Your task to perform on an android device: visit the assistant section in the google photos Image 0: 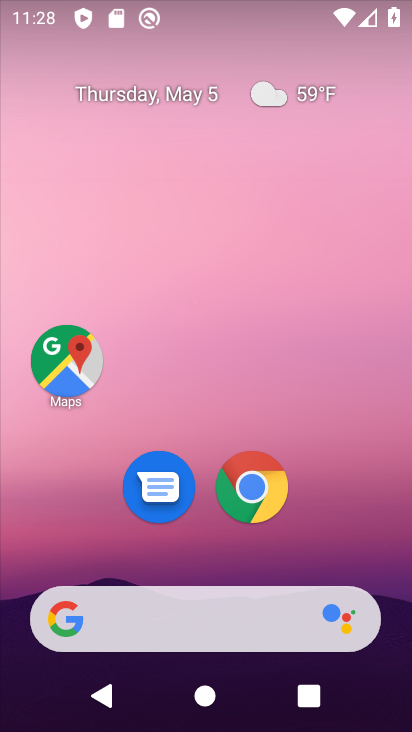
Step 0: drag from (313, 540) to (83, 94)
Your task to perform on an android device: visit the assistant section in the google photos Image 1: 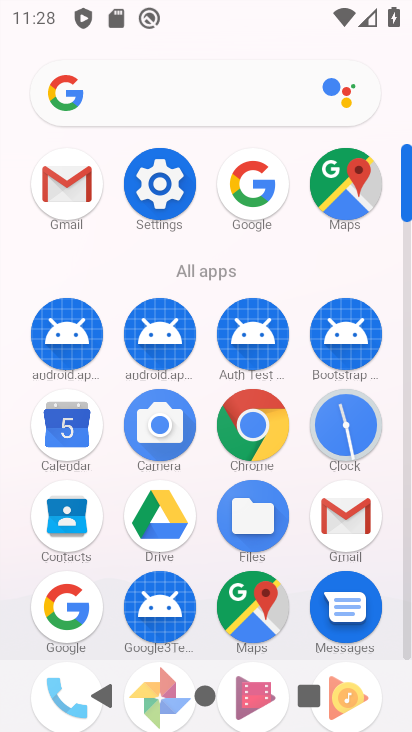
Step 1: drag from (206, 634) to (197, 347)
Your task to perform on an android device: visit the assistant section in the google photos Image 2: 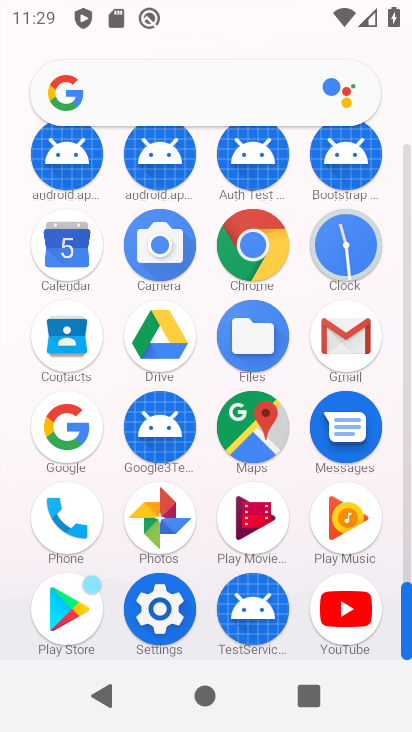
Step 2: click (162, 510)
Your task to perform on an android device: visit the assistant section in the google photos Image 3: 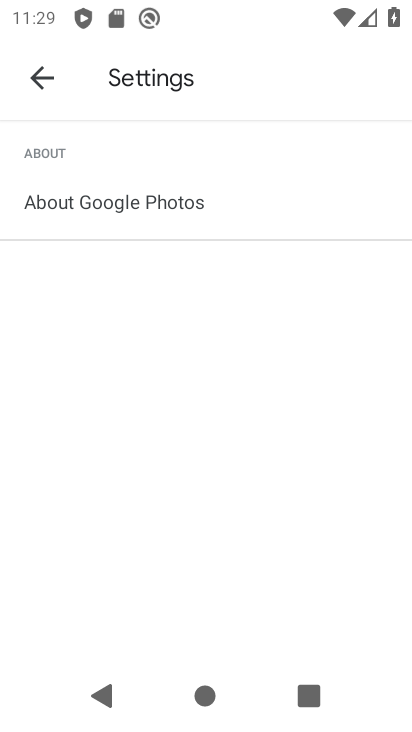
Step 3: press back button
Your task to perform on an android device: visit the assistant section in the google photos Image 4: 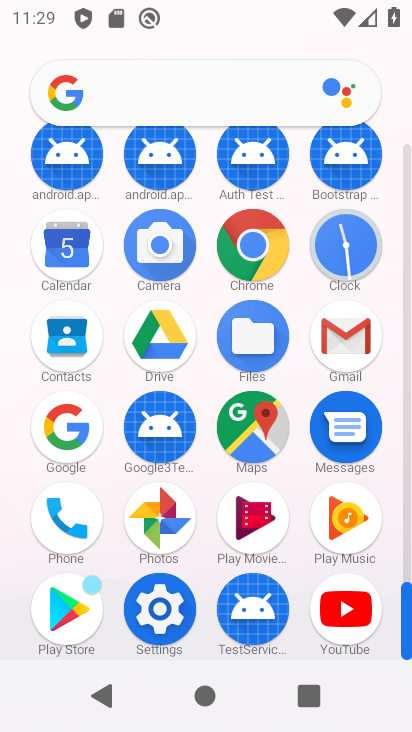
Step 4: click (158, 514)
Your task to perform on an android device: visit the assistant section in the google photos Image 5: 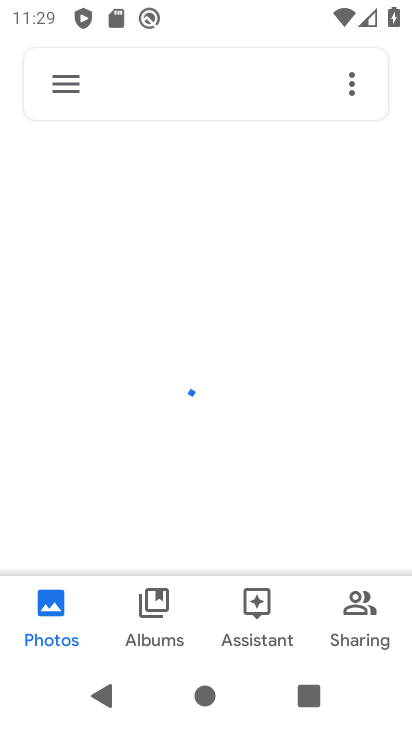
Step 5: click (253, 606)
Your task to perform on an android device: visit the assistant section in the google photos Image 6: 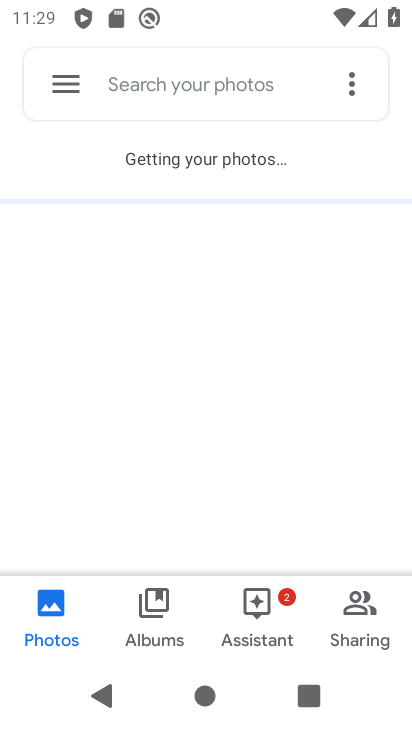
Step 6: click (258, 614)
Your task to perform on an android device: visit the assistant section in the google photos Image 7: 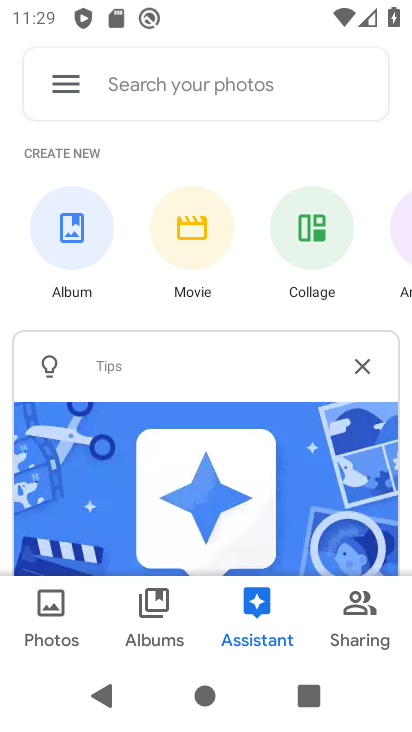
Step 7: task complete